Your task to perform on an android device: move a message to another label in the gmail app Image 0: 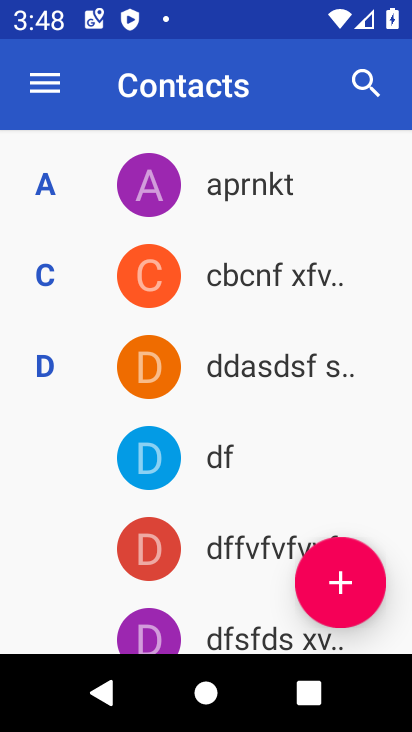
Step 0: press home button
Your task to perform on an android device: move a message to another label in the gmail app Image 1: 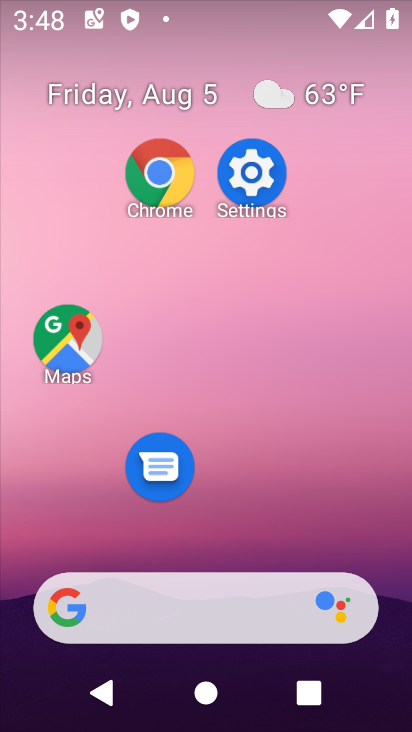
Step 1: drag from (311, 545) to (312, 32)
Your task to perform on an android device: move a message to another label in the gmail app Image 2: 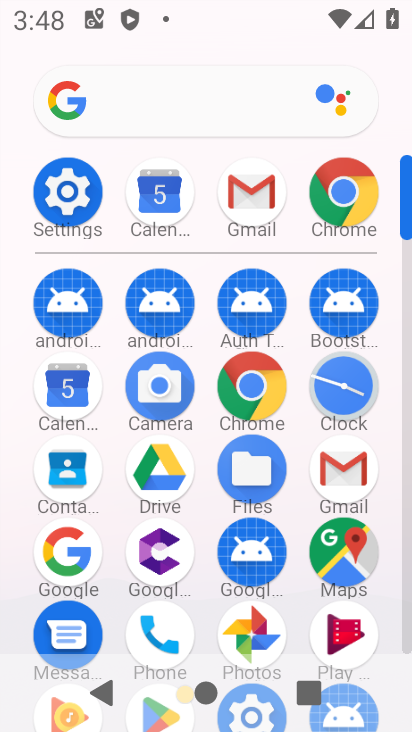
Step 2: click (353, 465)
Your task to perform on an android device: move a message to another label in the gmail app Image 3: 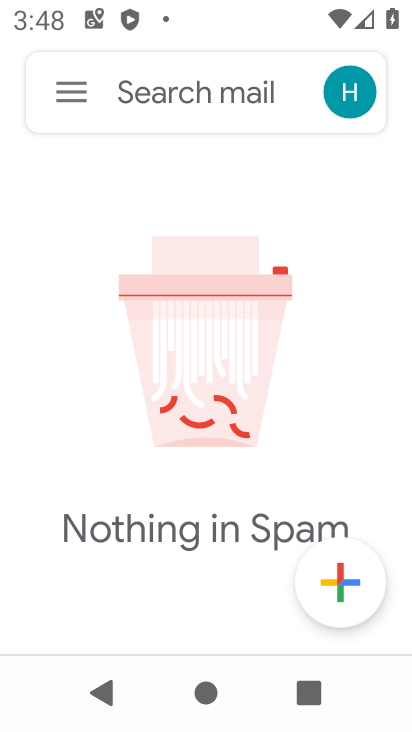
Step 3: click (78, 94)
Your task to perform on an android device: move a message to another label in the gmail app Image 4: 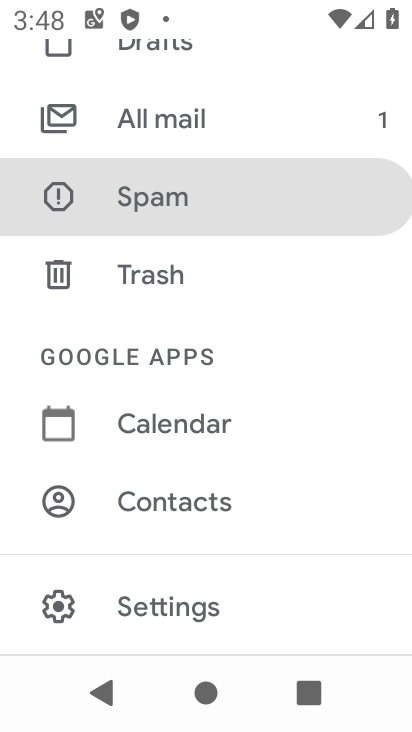
Step 4: task complete